Your task to perform on an android device: Search for the best Mexican restaurants Image 0: 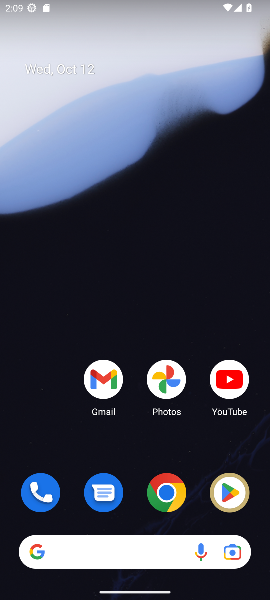
Step 0: click (164, 497)
Your task to perform on an android device: Search for the best Mexican restaurants Image 1: 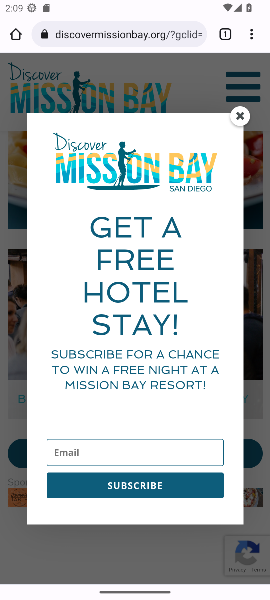
Step 1: click (72, 30)
Your task to perform on an android device: Search for the best Mexican restaurants Image 2: 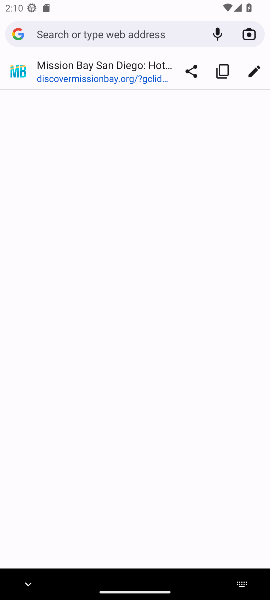
Step 2: type "best Mexican restaurants"
Your task to perform on an android device: Search for the best Mexican restaurants Image 3: 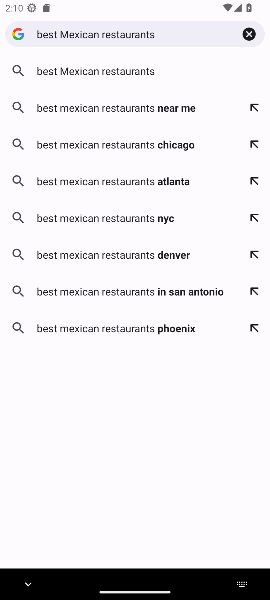
Step 3: click (68, 73)
Your task to perform on an android device: Search for the best Mexican restaurants Image 4: 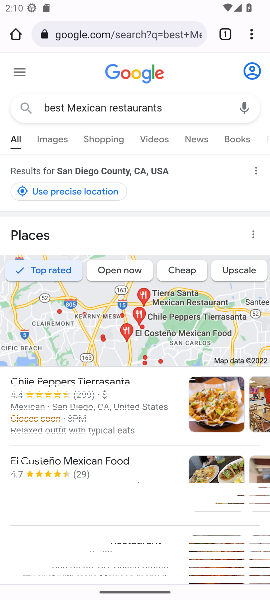
Step 4: task complete